Your task to perform on an android device: turn on improve location accuracy Image 0: 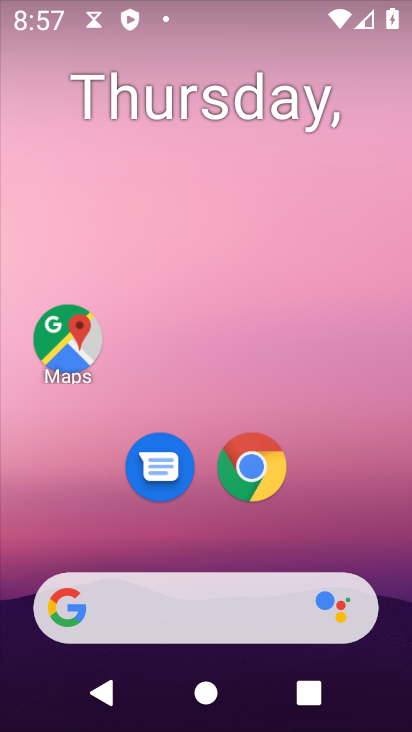
Step 0: drag from (329, 536) to (395, 132)
Your task to perform on an android device: turn on improve location accuracy Image 1: 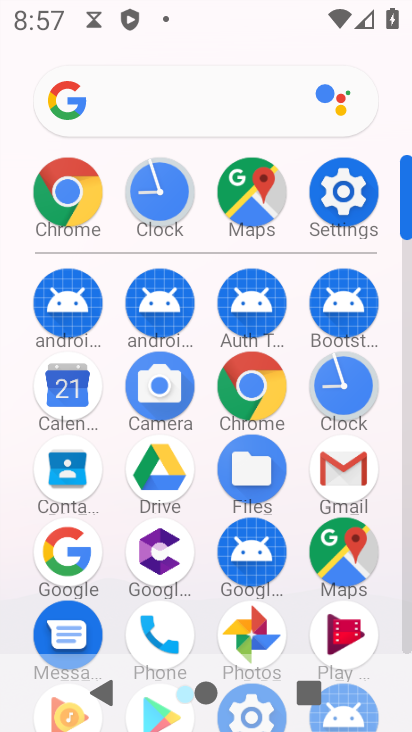
Step 1: click (323, 189)
Your task to perform on an android device: turn on improve location accuracy Image 2: 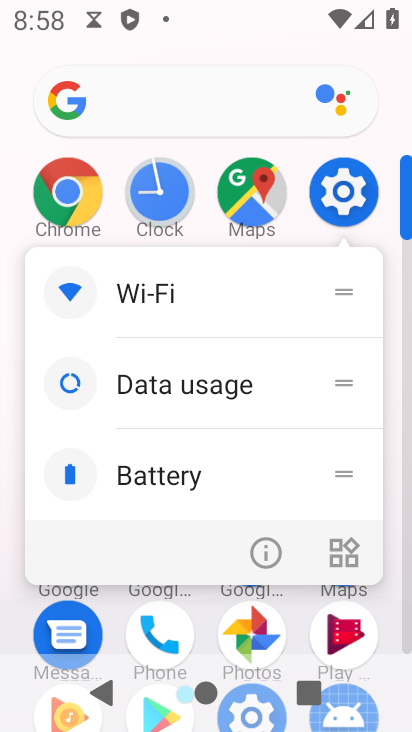
Step 2: click (363, 201)
Your task to perform on an android device: turn on improve location accuracy Image 3: 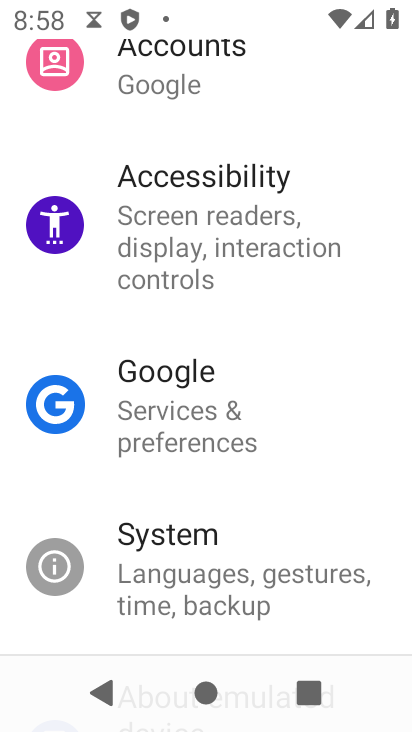
Step 3: drag from (188, 400) to (233, 533)
Your task to perform on an android device: turn on improve location accuracy Image 4: 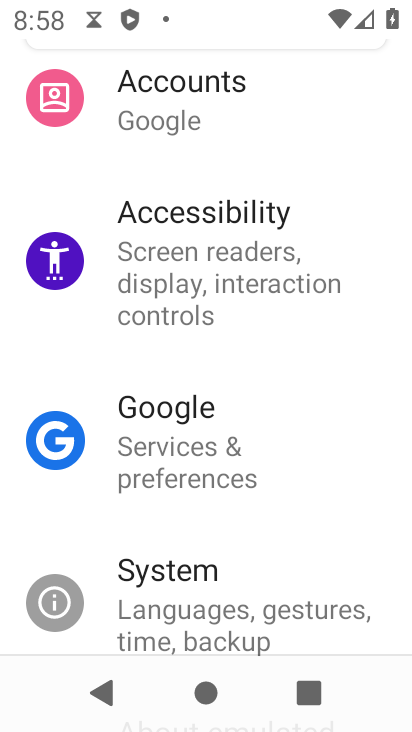
Step 4: drag from (273, 284) to (300, 431)
Your task to perform on an android device: turn on improve location accuracy Image 5: 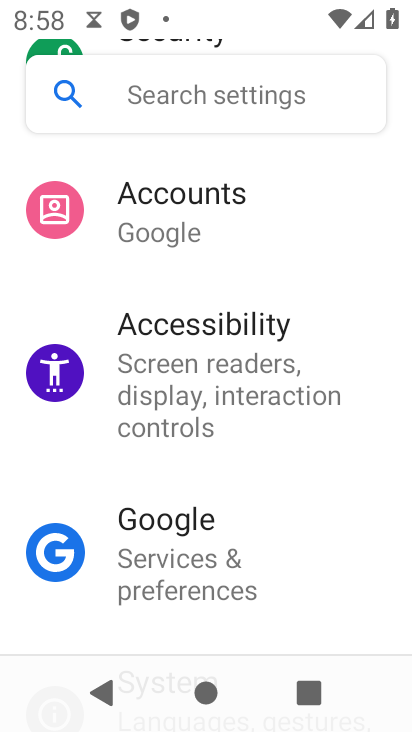
Step 5: drag from (330, 266) to (343, 334)
Your task to perform on an android device: turn on improve location accuracy Image 6: 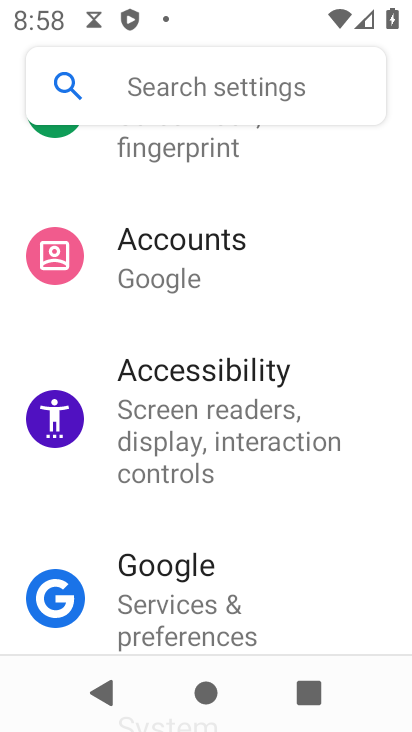
Step 6: drag from (308, 241) to (321, 360)
Your task to perform on an android device: turn on improve location accuracy Image 7: 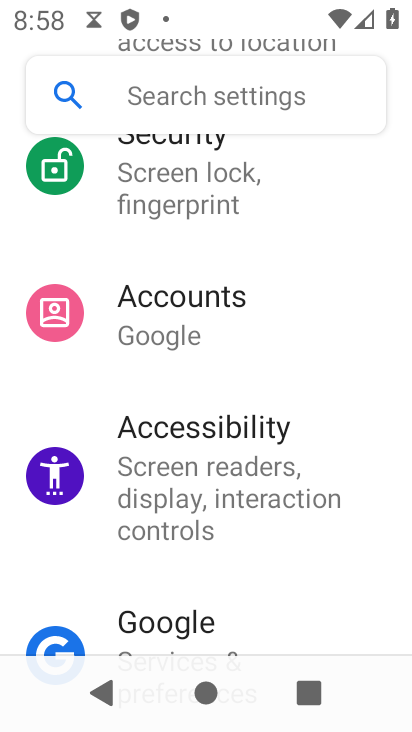
Step 7: drag from (283, 263) to (256, 410)
Your task to perform on an android device: turn on improve location accuracy Image 8: 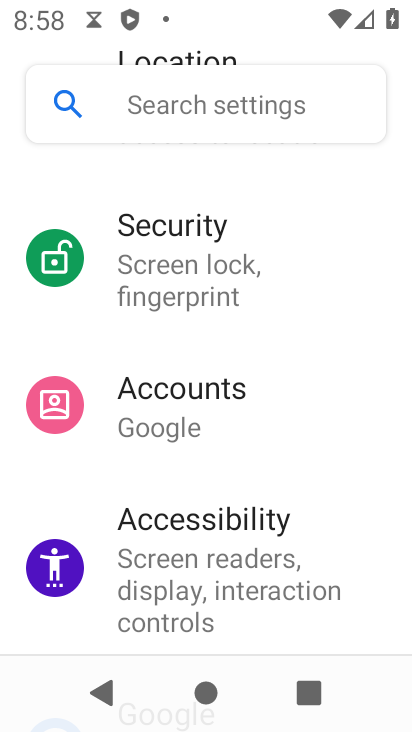
Step 8: drag from (243, 301) to (261, 406)
Your task to perform on an android device: turn on improve location accuracy Image 9: 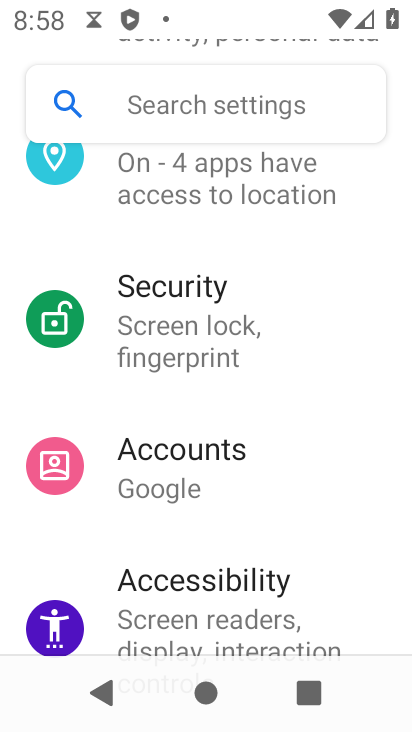
Step 9: click (267, 213)
Your task to perform on an android device: turn on improve location accuracy Image 10: 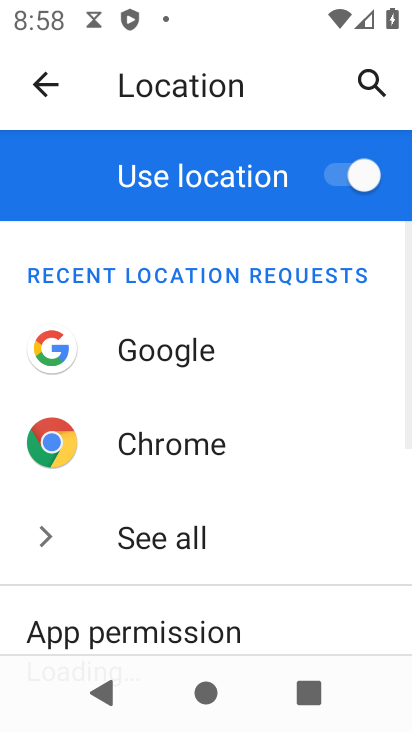
Step 10: drag from (291, 499) to (271, 363)
Your task to perform on an android device: turn on improve location accuracy Image 11: 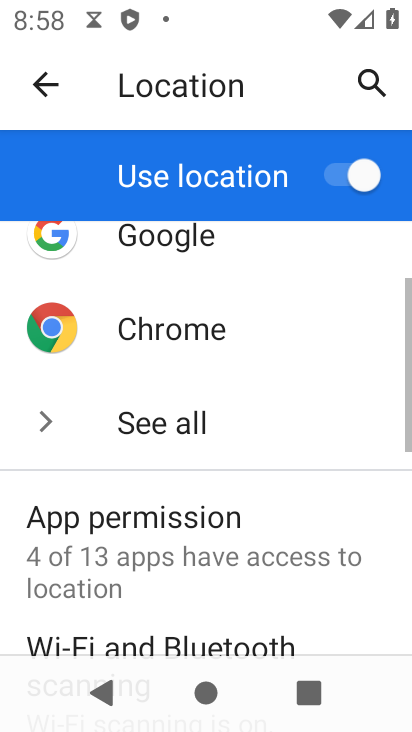
Step 11: drag from (234, 482) to (222, 359)
Your task to perform on an android device: turn on improve location accuracy Image 12: 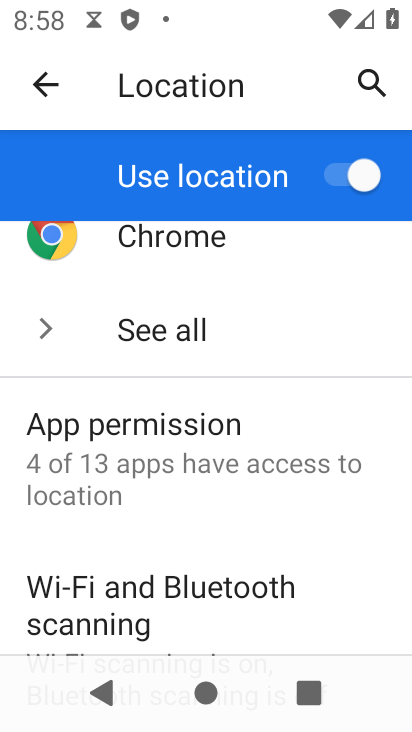
Step 12: drag from (249, 523) to (261, 356)
Your task to perform on an android device: turn on improve location accuracy Image 13: 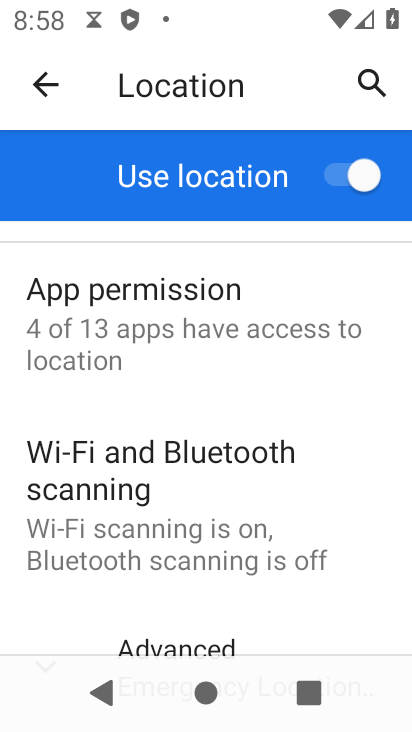
Step 13: drag from (278, 497) to (251, 351)
Your task to perform on an android device: turn on improve location accuracy Image 14: 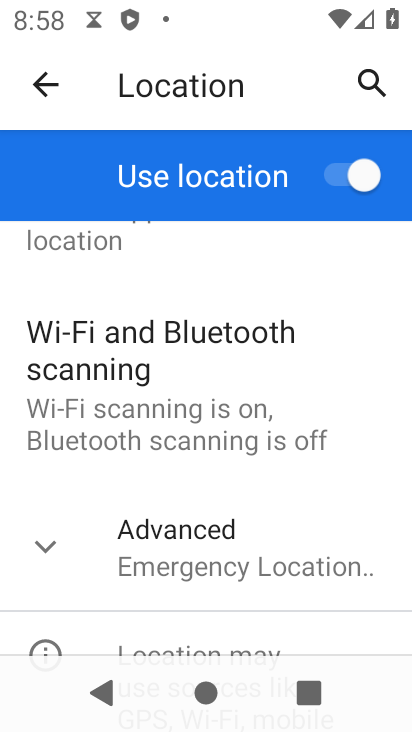
Step 14: click (303, 552)
Your task to perform on an android device: turn on improve location accuracy Image 15: 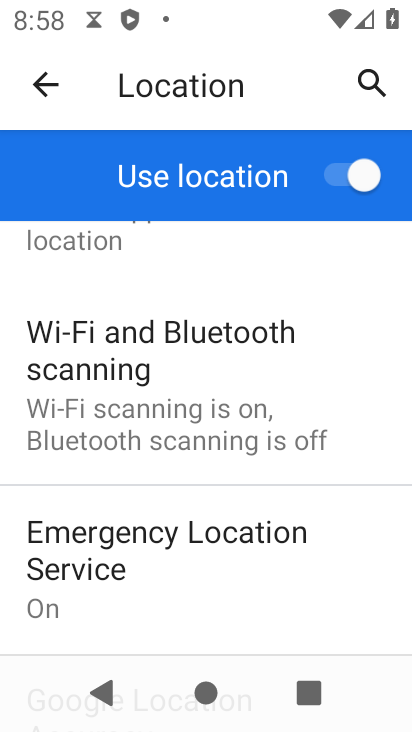
Step 15: drag from (270, 584) to (243, 468)
Your task to perform on an android device: turn on improve location accuracy Image 16: 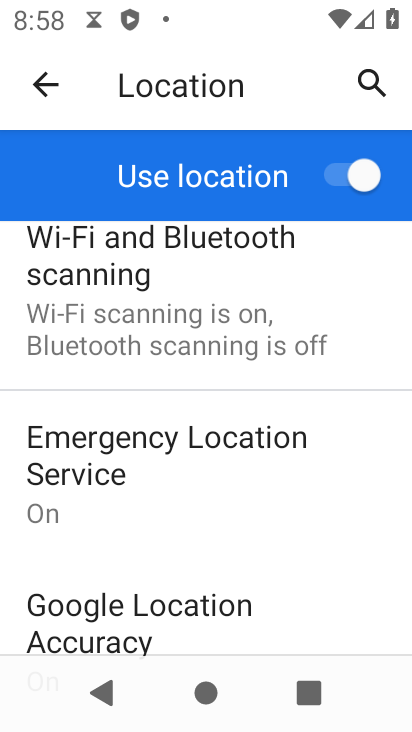
Step 16: drag from (245, 546) to (234, 445)
Your task to perform on an android device: turn on improve location accuracy Image 17: 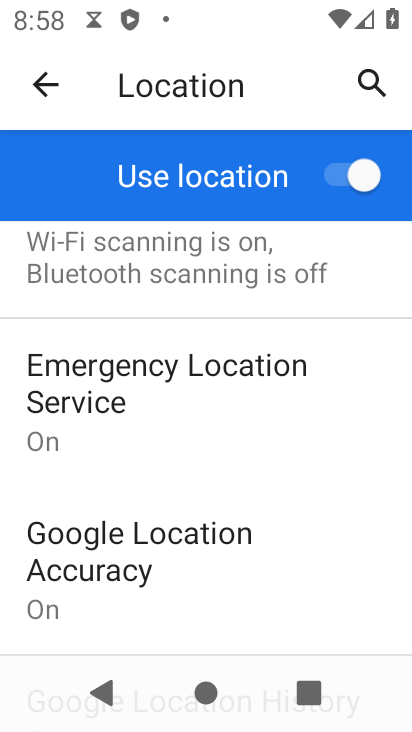
Step 17: drag from (230, 534) to (211, 427)
Your task to perform on an android device: turn on improve location accuracy Image 18: 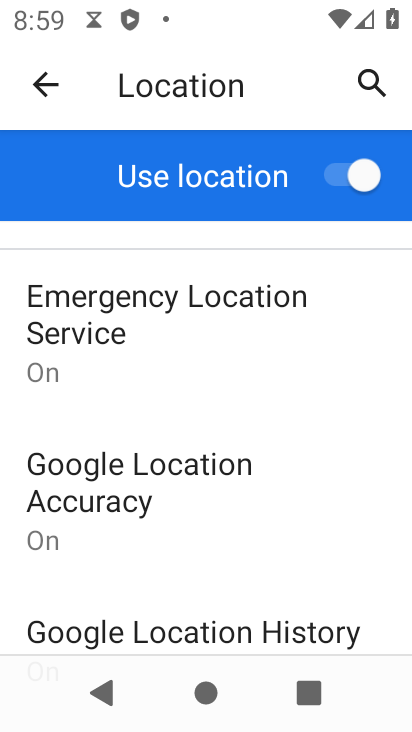
Step 18: drag from (236, 534) to (244, 435)
Your task to perform on an android device: turn on improve location accuracy Image 19: 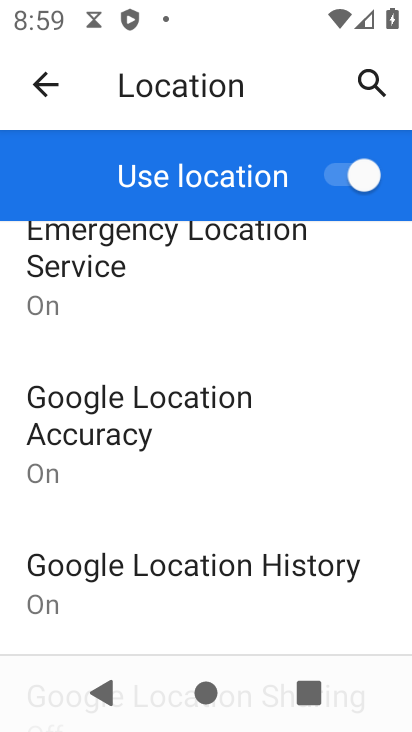
Step 19: click (244, 435)
Your task to perform on an android device: turn on improve location accuracy Image 20: 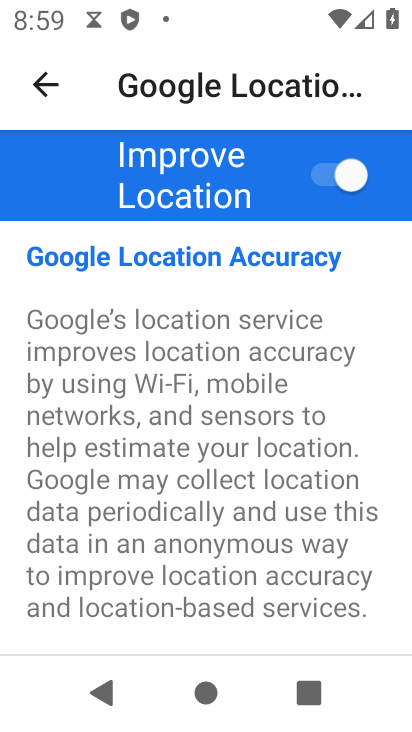
Step 20: task complete